Your task to perform on an android device: Open Google Image 0: 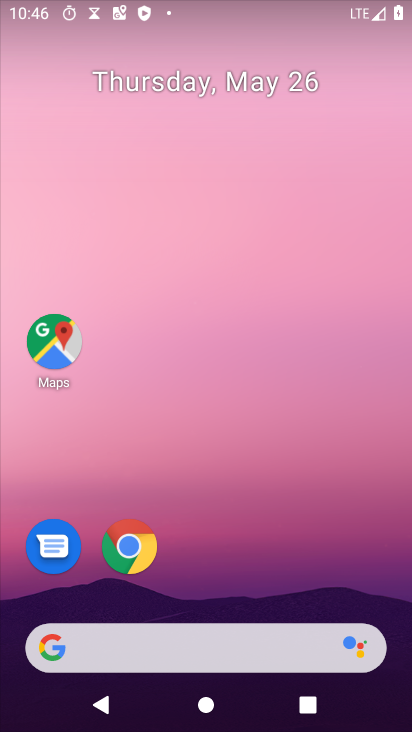
Step 0: drag from (367, 574) to (345, 164)
Your task to perform on an android device: Open Google Image 1: 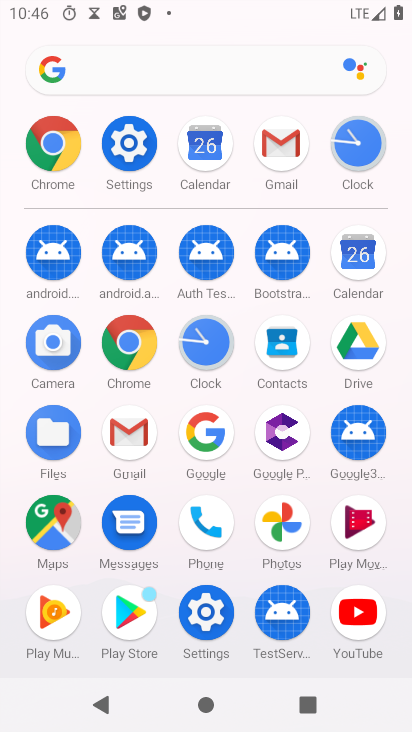
Step 1: click (215, 439)
Your task to perform on an android device: Open Google Image 2: 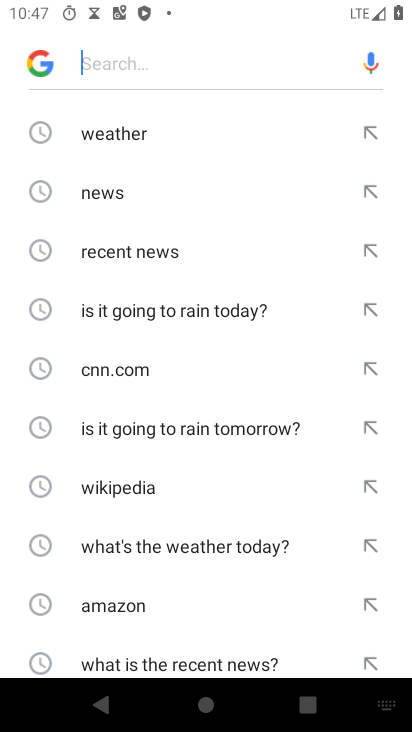
Step 2: task complete